Your task to perform on an android device: When is my next meeting? Image 0: 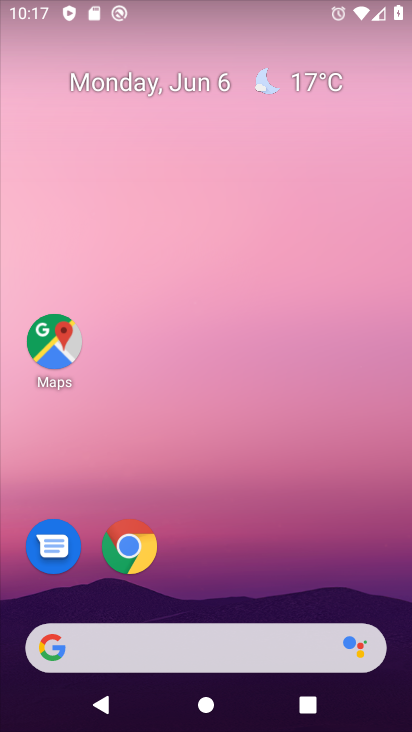
Step 0: drag from (254, 556) to (392, 77)
Your task to perform on an android device: When is my next meeting? Image 1: 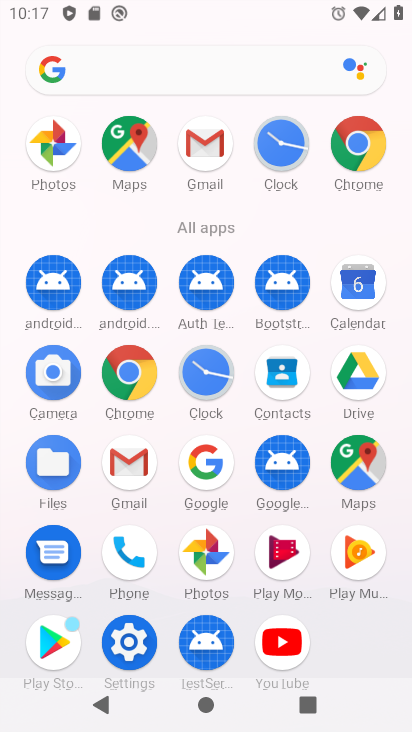
Step 1: click (364, 288)
Your task to perform on an android device: When is my next meeting? Image 2: 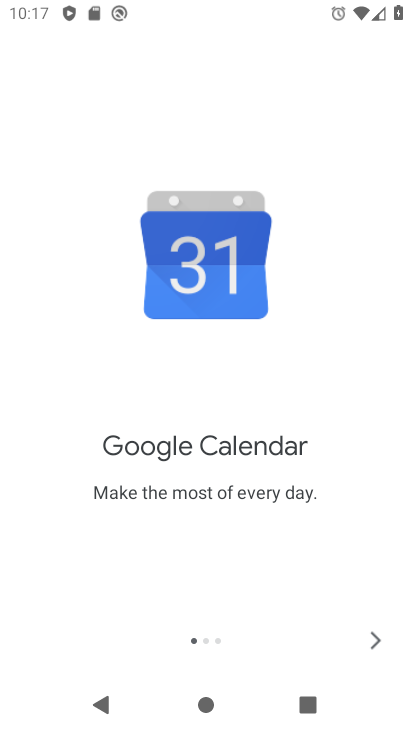
Step 2: click (376, 642)
Your task to perform on an android device: When is my next meeting? Image 3: 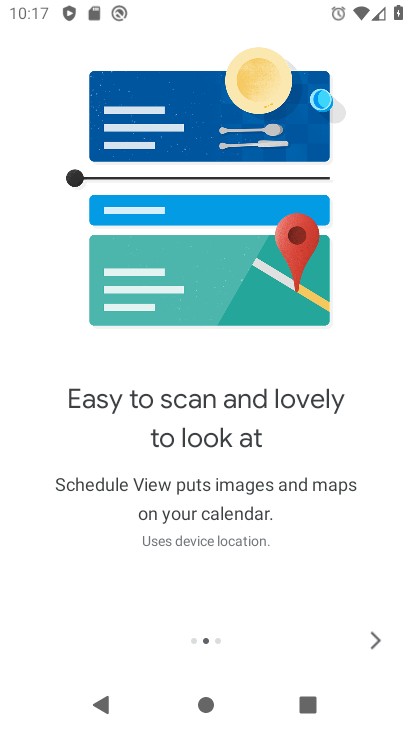
Step 3: click (363, 627)
Your task to perform on an android device: When is my next meeting? Image 4: 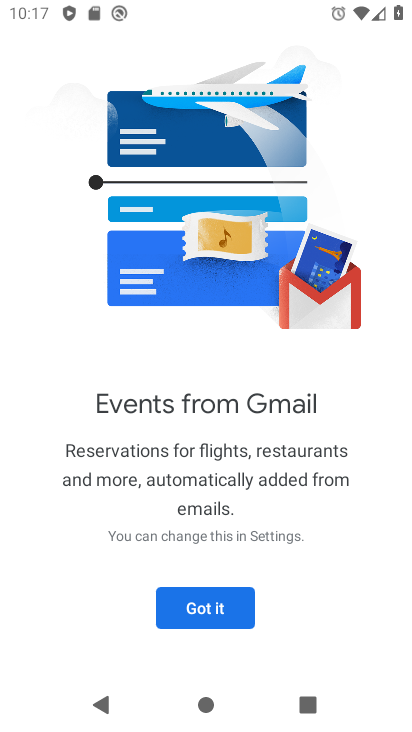
Step 4: click (200, 605)
Your task to perform on an android device: When is my next meeting? Image 5: 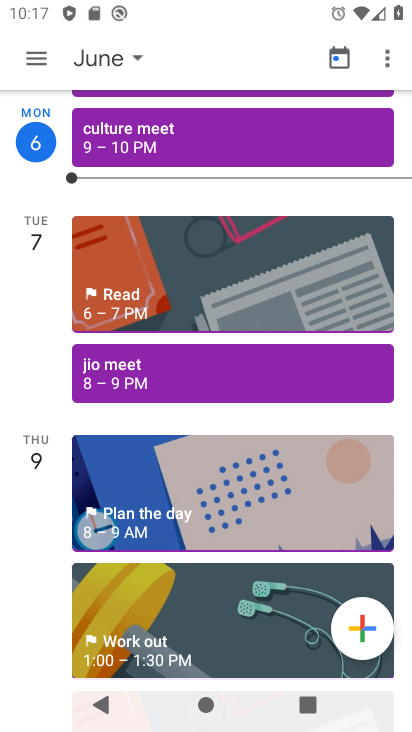
Step 5: drag from (239, 199) to (234, 366)
Your task to perform on an android device: When is my next meeting? Image 6: 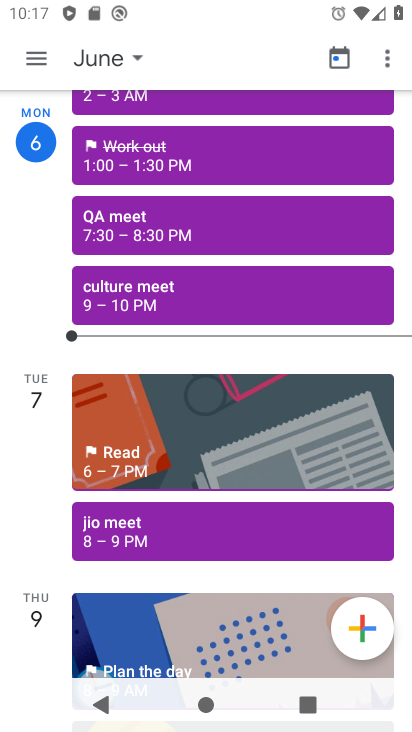
Step 6: drag from (178, 166) to (196, 221)
Your task to perform on an android device: When is my next meeting? Image 7: 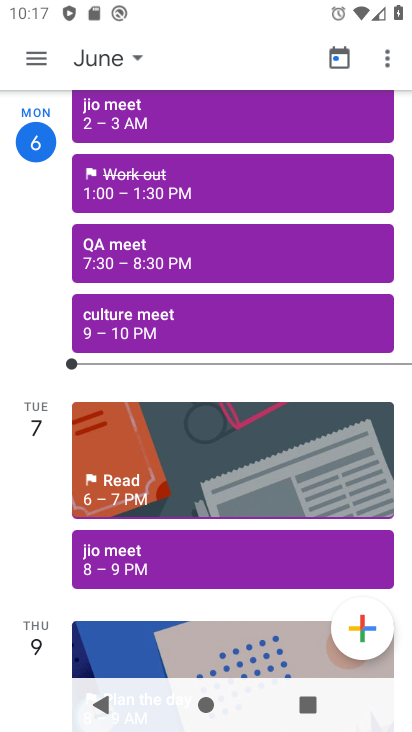
Step 7: click (136, 267)
Your task to perform on an android device: When is my next meeting? Image 8: 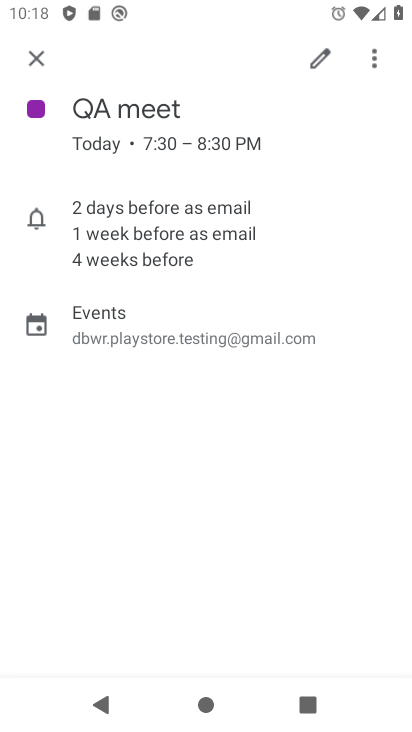
Step 8: task complete